Your task to perform on an android device: Go to accessibility settings Image 0: 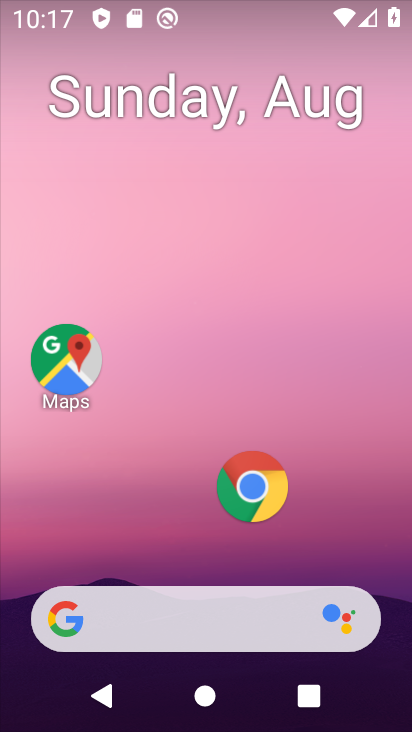
Step 0: drag from (144, 680) to (249, 133)
Your task to perform on an android device: Go to accessibility settings Image 1: 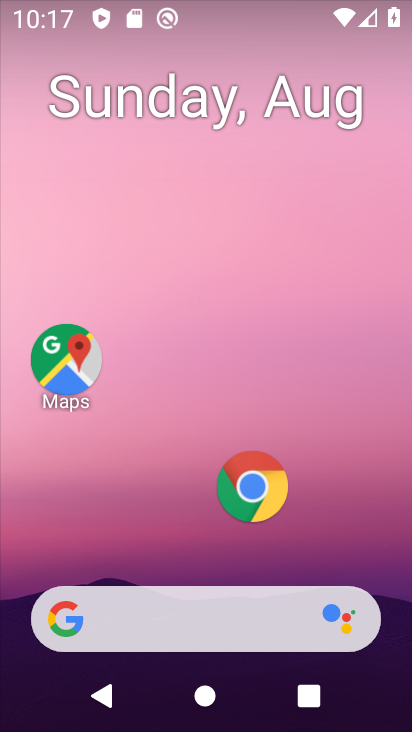
Step 1: drag from (142, 697) to (176, 82)
Your task to perform on an android device: Go to accessibility settings Image 2: 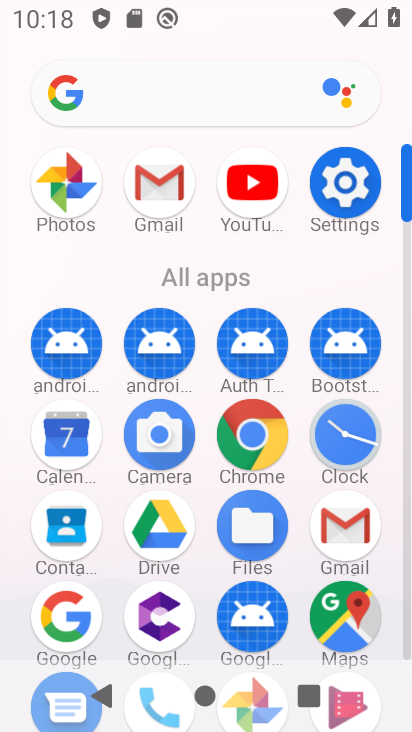
Step 2: click (352, 162)
Your task to perform on an android device: Go to accessibility settings Image 3: 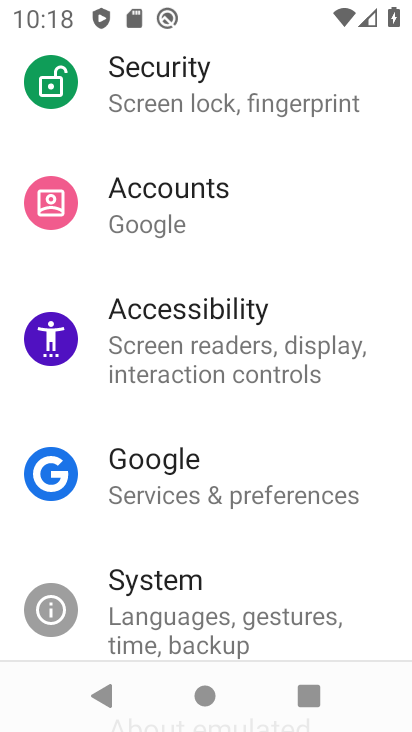
Step 3: click (231, 343)
Your task to perform on an android device: Go to accessibility settings Image 4: 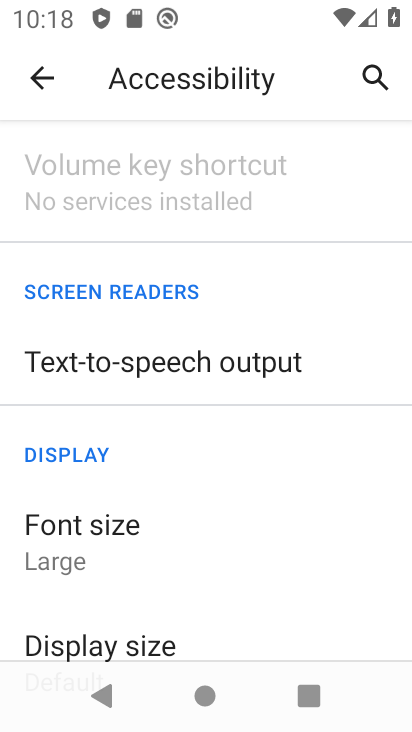
Step 4: task complete